Your task to perform on an android device: see sites visited before in the chrome app Image 0: 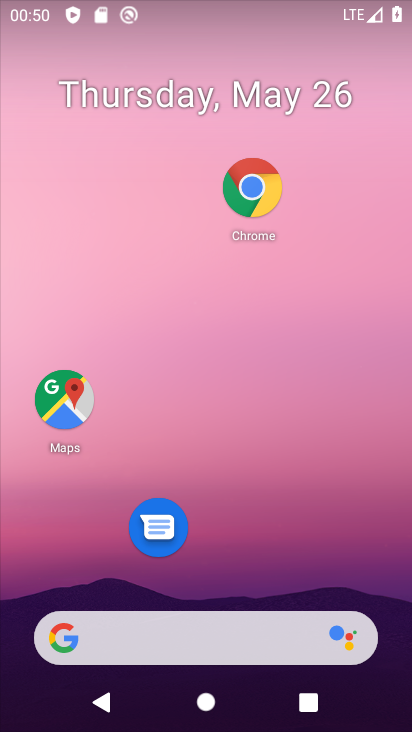
Step 0: click (239, 179)
Your task to perform on an android device: see sites visited before in the chrome app Image 1: 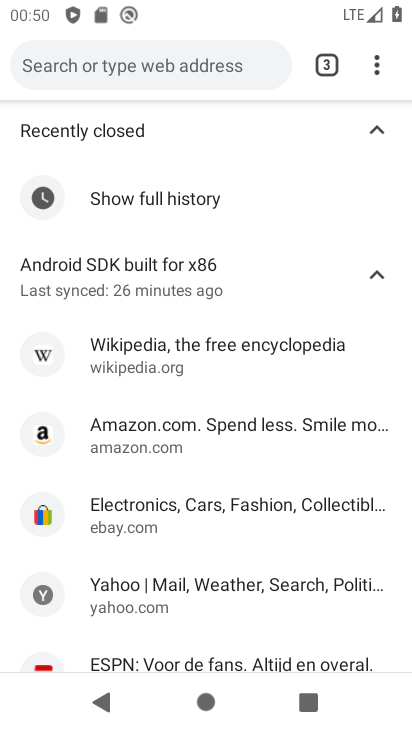
Step 1: click (392, 61)
Your task to perform on an android device: see sites visited before in the chrome app Image 2: 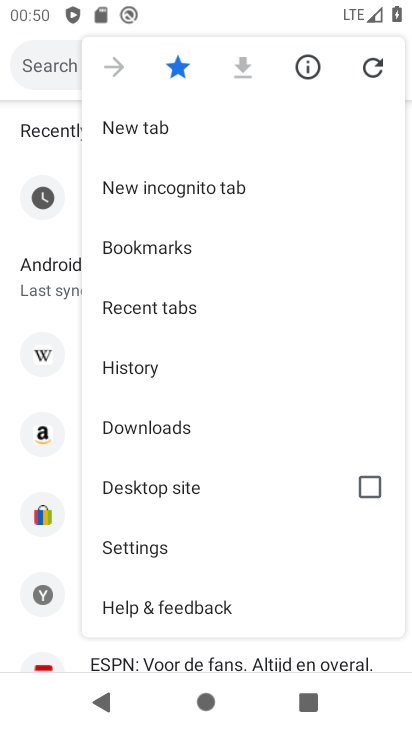
Step 2: click (155, 324)
Your task to perform on an android device: see sites visited before in the chrome app Image 3: 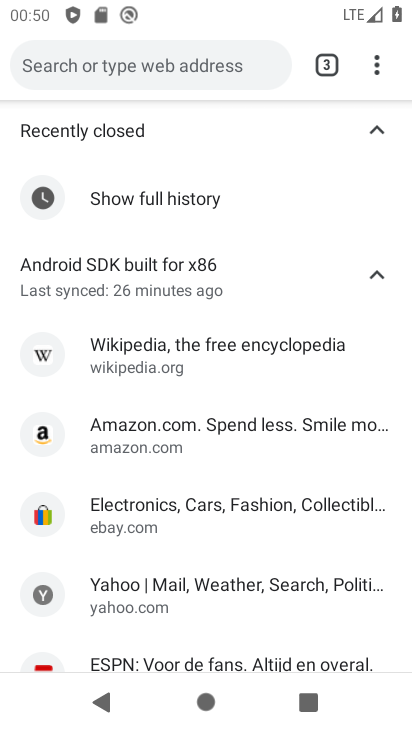
Step 3: task complete